Your task to perform on an android device: Go to Yahoo.com Image 0: 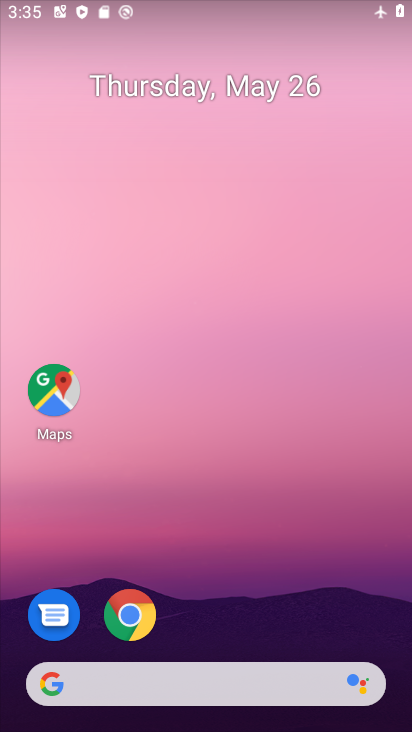
Step 0: drag from (208, 177) to (228, 117)
Your task to perform on an android device: Go to Yahoo.com Image 1: 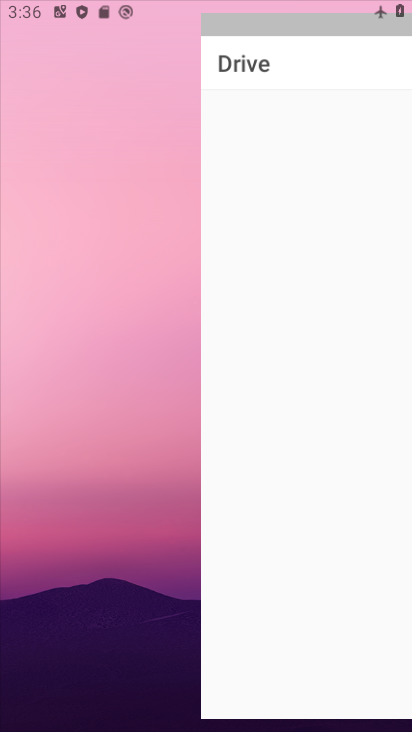
Step 1: press home button
Your task to perform on an android device: Go to Yahoo.com Image 2: 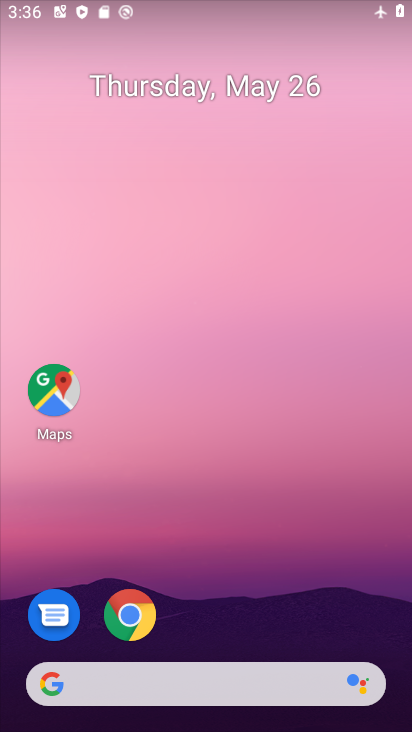
Step 2: click (129, 611)
Your task to perform on an android device: Go to Yahoo.com Image 3: 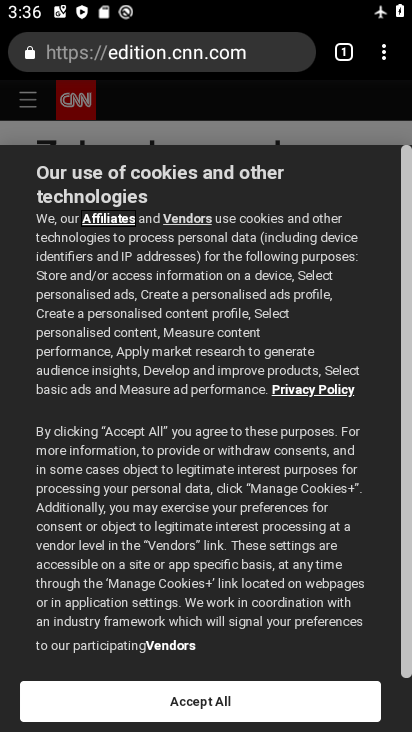
Step 3: click (293, 48)
Your task to perform on an android device: Go to Yahoo.com Image 4: 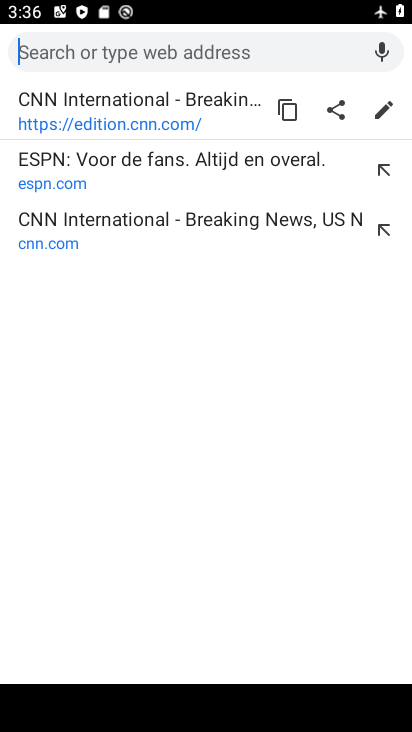
Step 4: type "yahoo"
Your task to perform on an android device: Go to Yahoo.com Image 5: 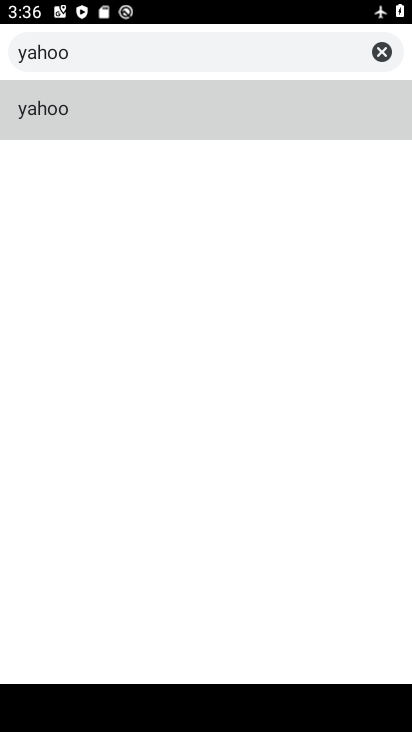
Step 5: click (48, 111)
Your task to perform on an android device: Go to Yahoo.com Image 6: 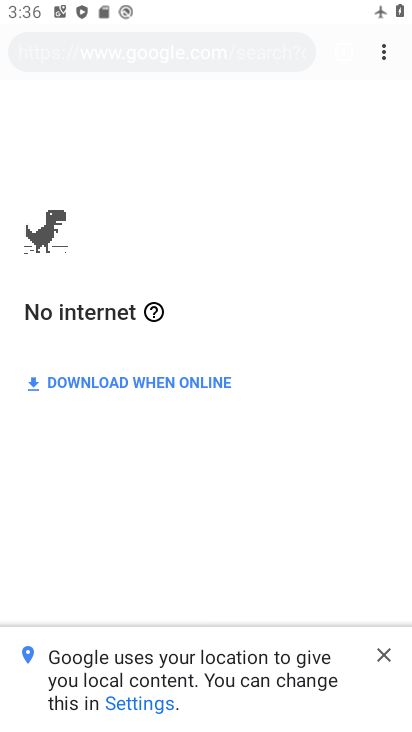
Step 6: drag from (362, 5) to (351, 438)
Your task to perform on an android device: Go to Yahoo.com Image 7: 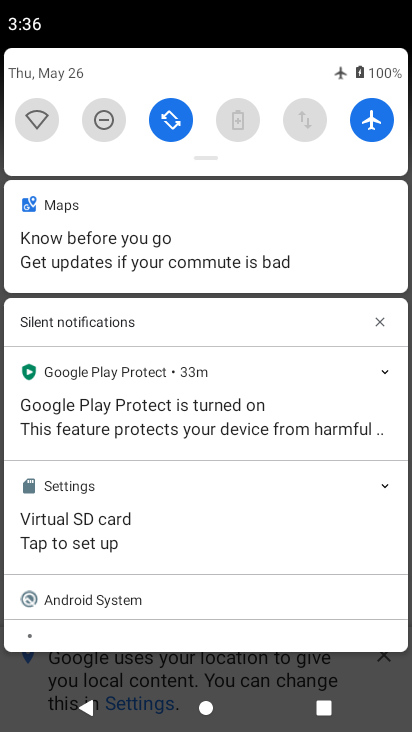
Step 7: click (375, 105)
Your task to perform on an android device: Go to Yahoo.com Image 8: 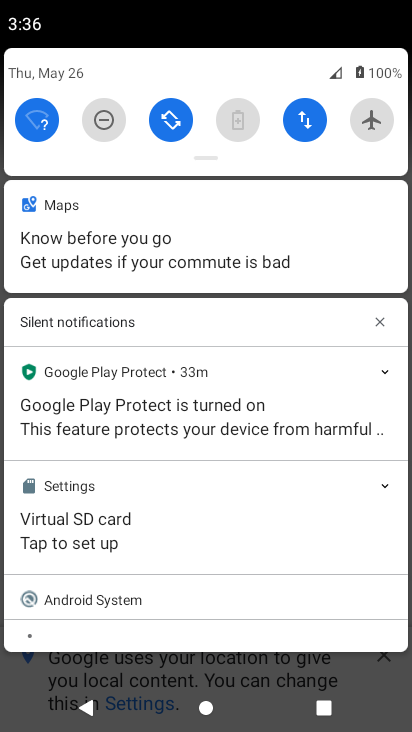
Step 8: drag from (305, 658) to (284, 140)
Your task to perform on an android device: Go to Yahoo.com Image 9: 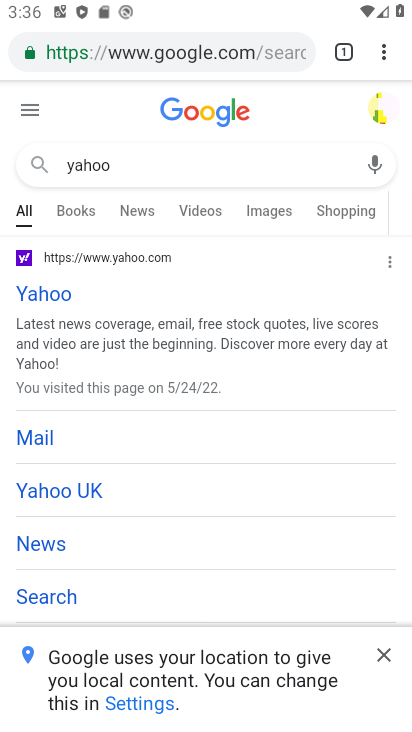
Step 9: click (42, 286)
Your task to perform on an android device: Go to Yahoo.com Image 10: 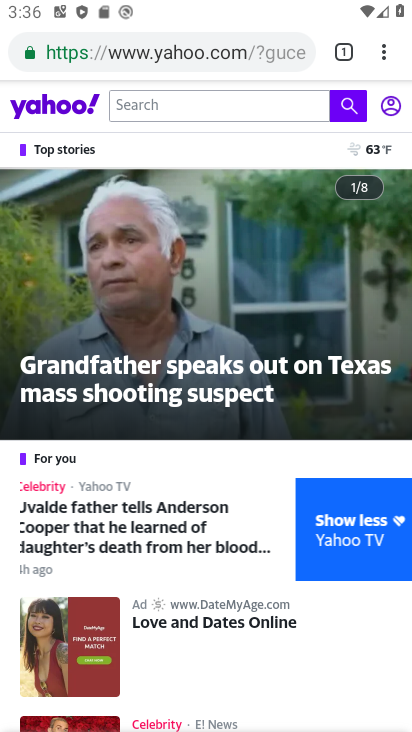
Step 10: task complete